Your task to perform on an android device: Go to ESPN.com Image 0: 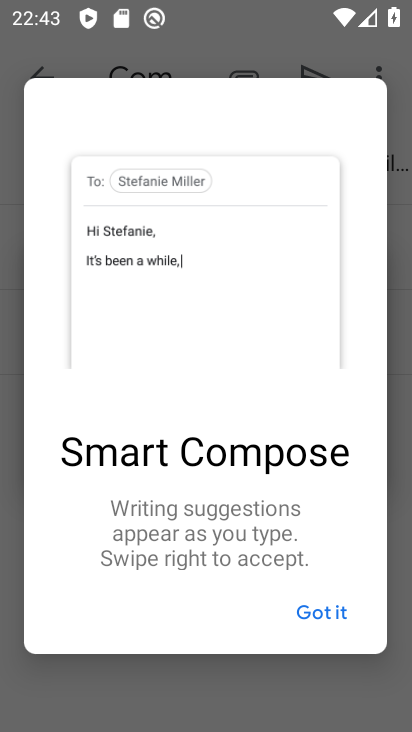
Step 0: press home button
Your task to perform on an android device: Go to ESPN.com Image 1: 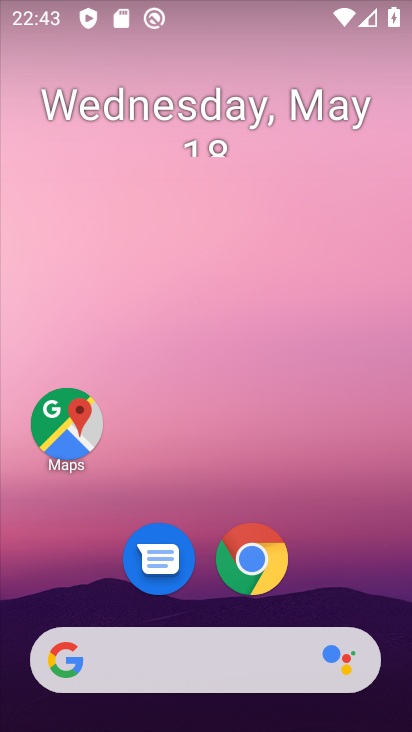
Step 1: click (247, 564)
Your task to perform on an android device: Go to ESPN.com Image 2: 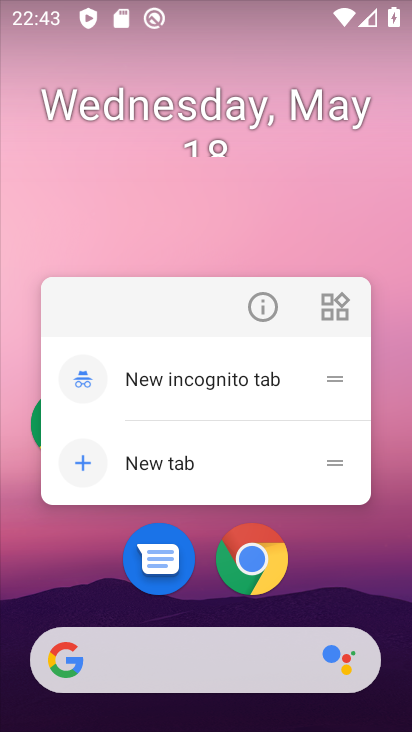
Step 2: click (259, 560)
Your task to perform on an android device: Go to ESPN.com Image 3: 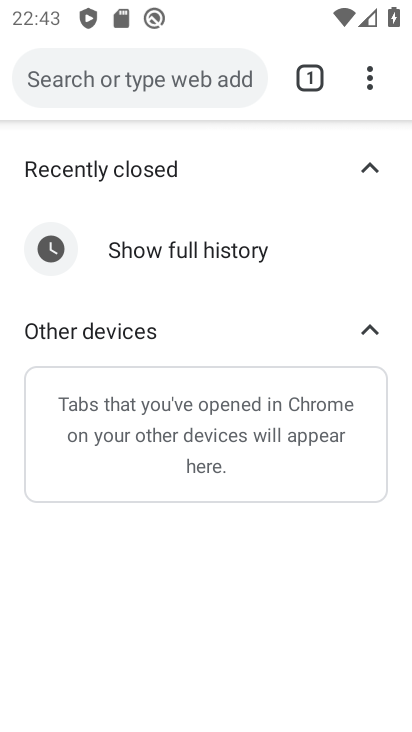
Step 3: press back button
Your task to perform on an android device: Go to ESPN.com Image 4: 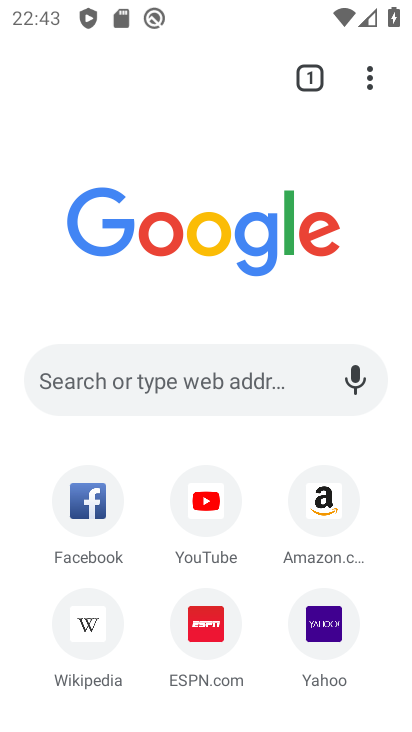
Step 4: click (209, 633)
Your task to perform on an android device: Go to ESPN.com Image 5: 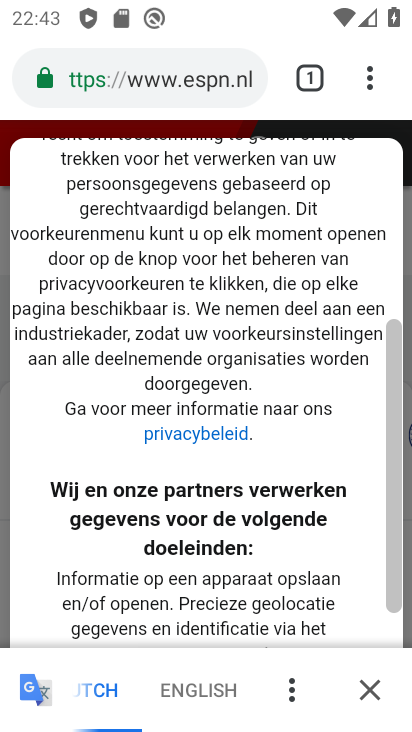
Step 5: task complete